Your task to perform on an android device: Go to Wikipedia Image 0: 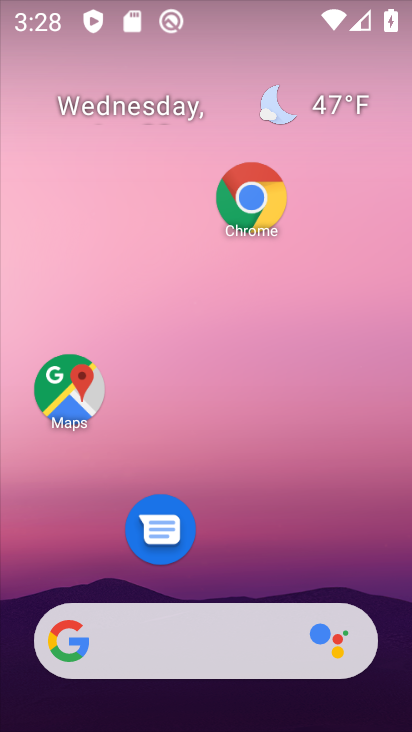
Step 0: click (256, 205)
Your task to perform on an android device: Go to Wikipedia Image 1: 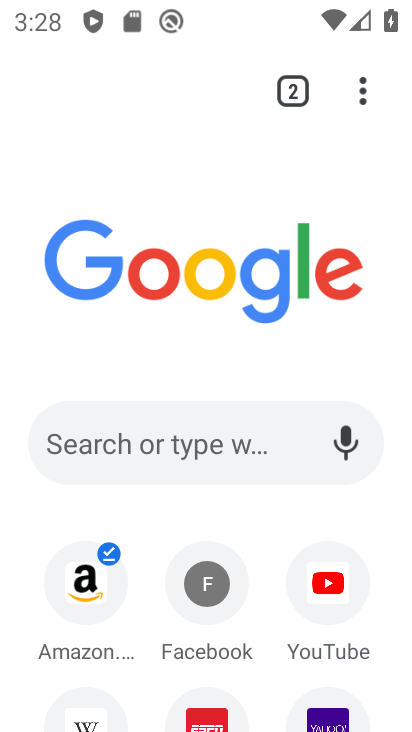
Step 1: click (73, 711)
Your task to perform on an android device: Go to Wikipedia Image 2: 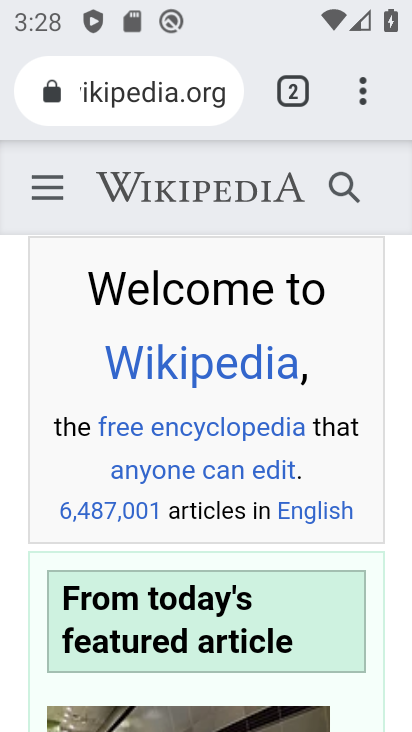
Step 2: task complete